Your task to perform on an android device: Go to Maps Image 0: 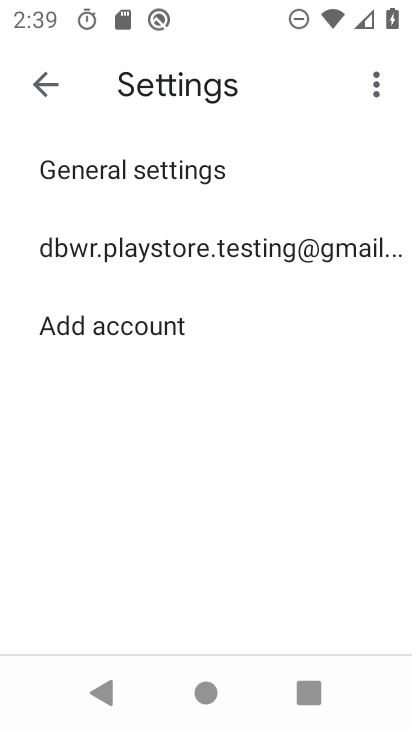
Step 0: press home button
Your task to perform on an android device: Go to Maps Image 1: 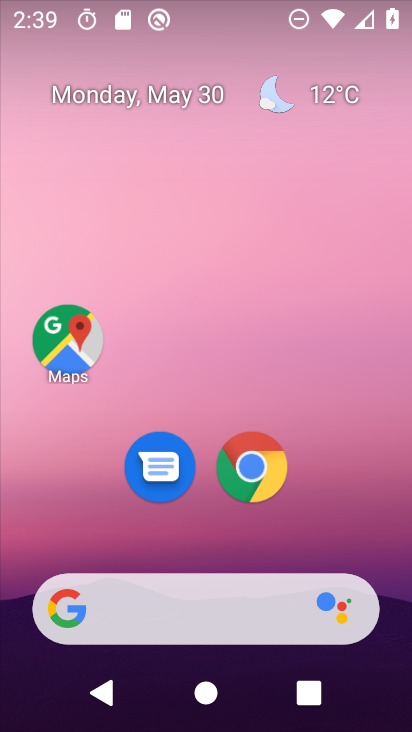
Step 1: click (45, 359)
Your task to perform on an android device: Go to Maps Image 2: 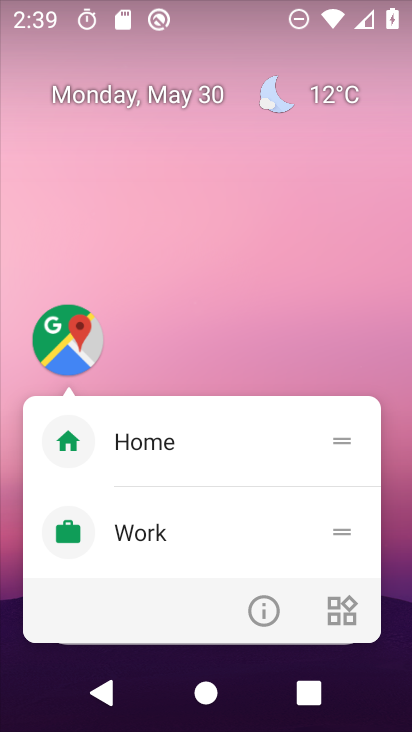
Step 2: click (55, 330)
Your task to perform on an android device: Go to Maps Image 3: 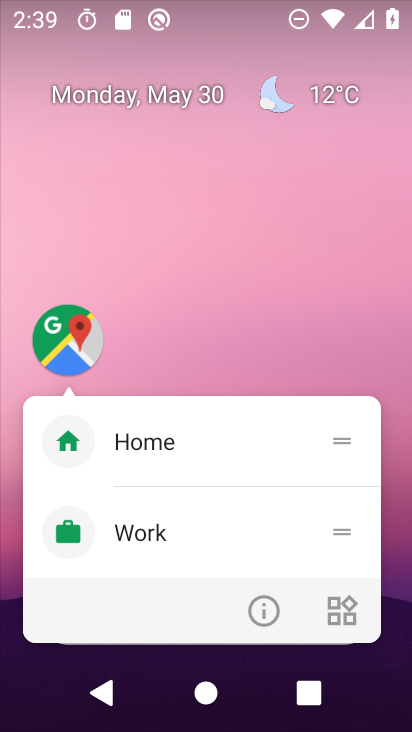
Step 3: click (56, 331)
Your task to perform on an android device: Go to Maps Image 4: 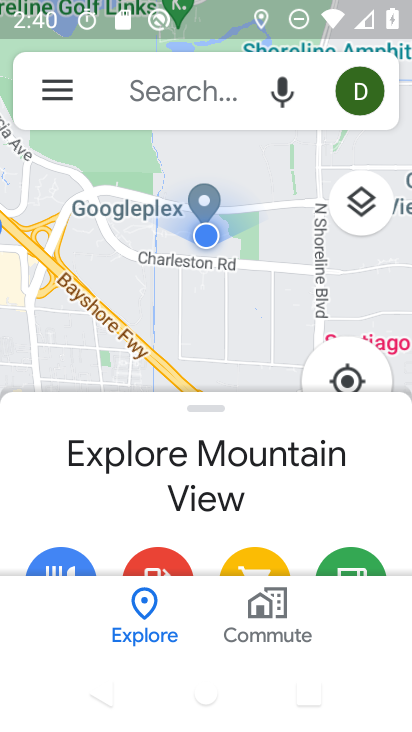
Step 4: task complete